Your task to perform on an android device: change the upload size in google photos Image 0: 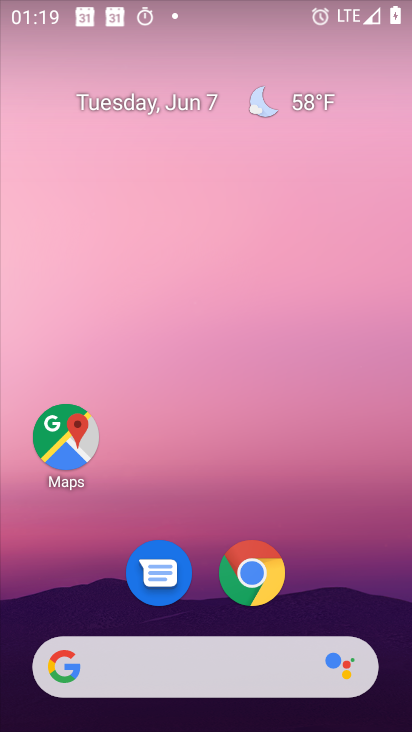
Step 0: drag from (358, 586) to (376, 71)
Your task to perform on an android device: change the upload size in google photos Image 1: 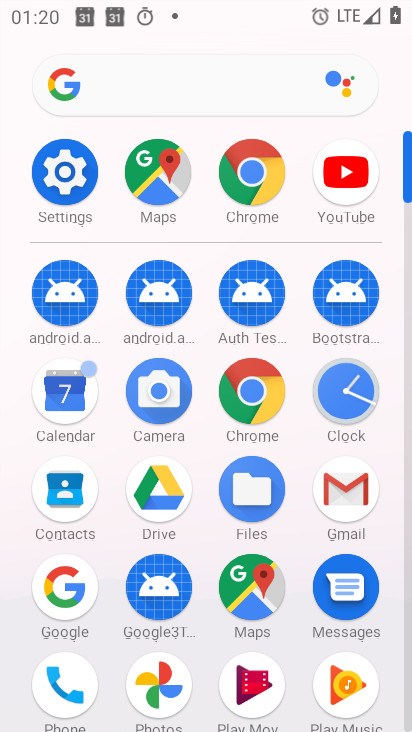
Step 1: click (156, 672)
Your task to perform on an android device: change the upload size in google photos Image 2: 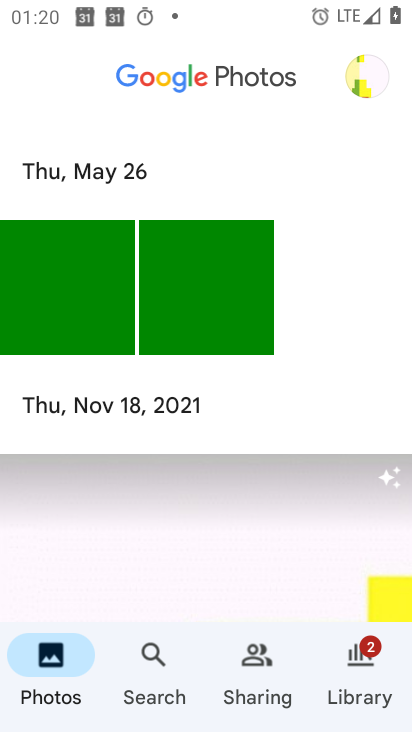
Step 2: click (358, 75)
Your task to perform on an android device: change the upload size in google photos Image 3: 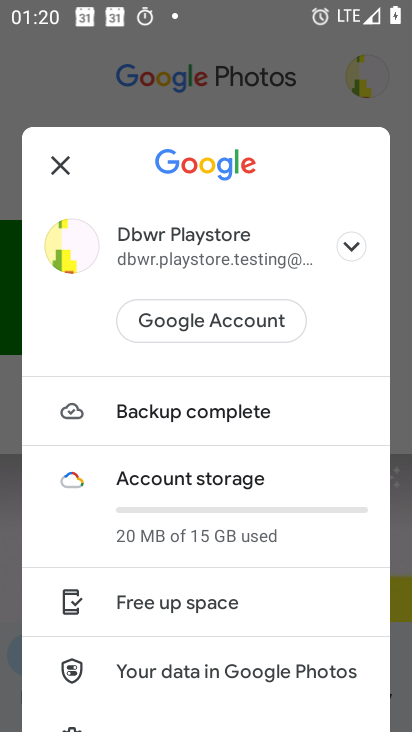
Step 3: drag from (132, 666) to (161, 285)
Your task to perform on an android device: change the upload size in google photos Image 4: 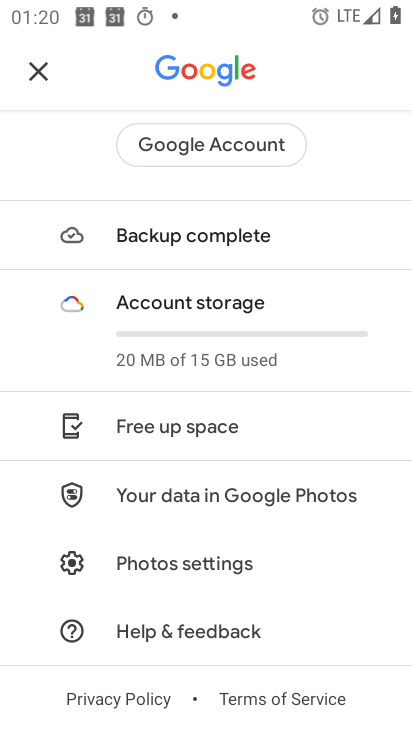
Step 4: click (167, 557)
Your task to perform on an android device: change the upload size in google photos Image 5: 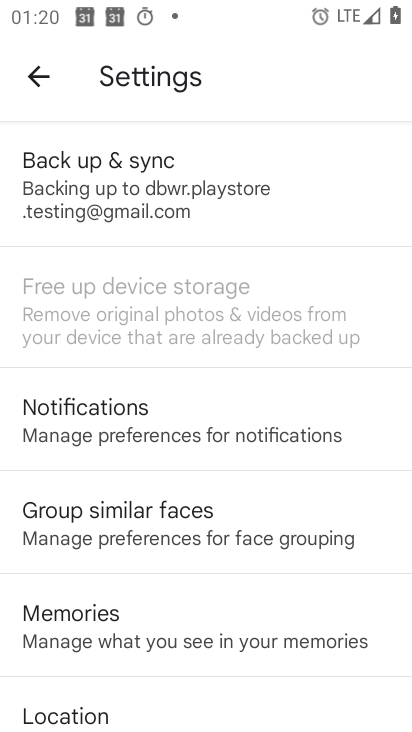
Step 5: click (116, 194)
Your task to perform on an android device: change the upload size in google photos Image 6: 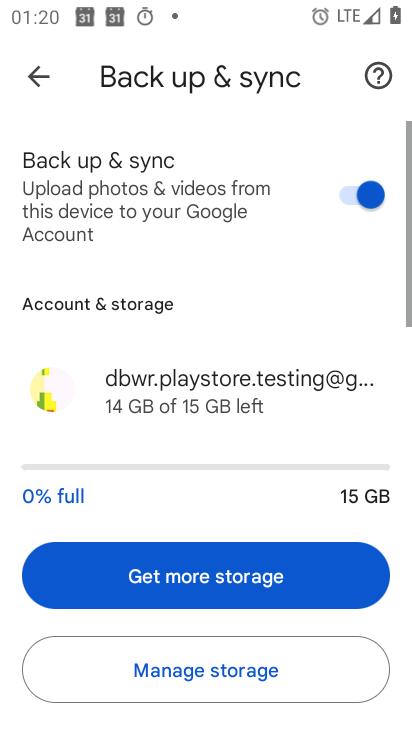
Step 6: drag from (68, 558) to (108, 254)
Your task to perform on an android device: change the upload size in google photos Image 7: 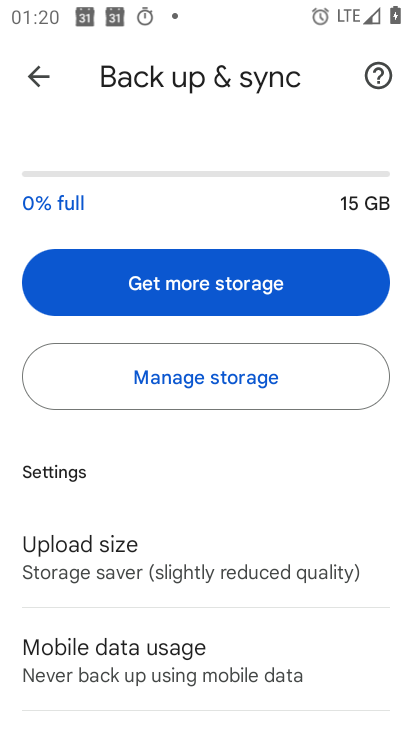
Step 7: click (92, 545)
Your task to perform on an android device: change the upload size in google photos Image 8: 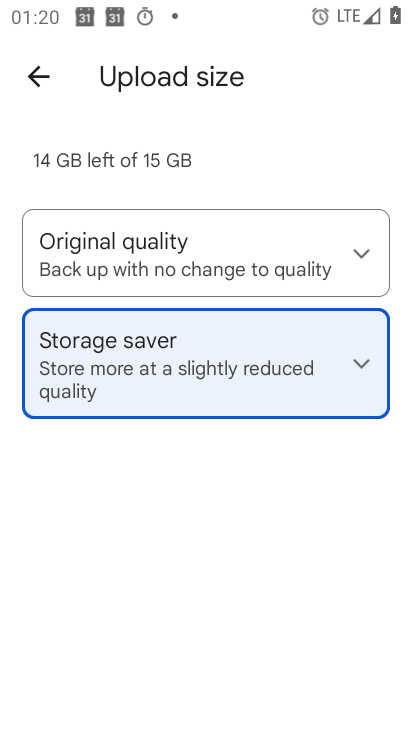
Step 8: click (95, 244)
Your task to perform on an android device: change the upload size in google photos Image 9: 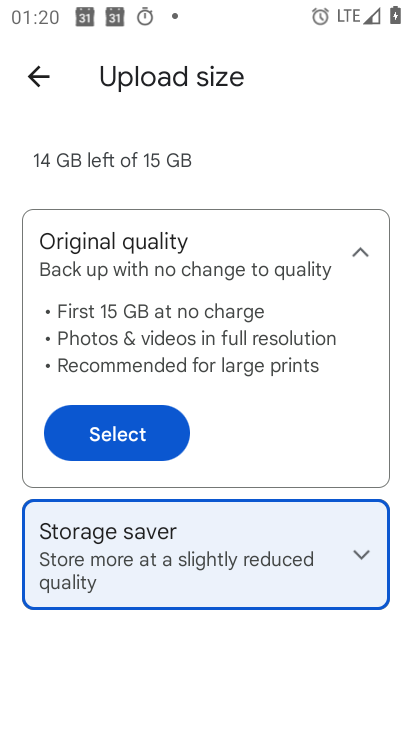
Step 9: click (98, 441)
Your task to perform on an android device: change the upload size in google photos Image 10: 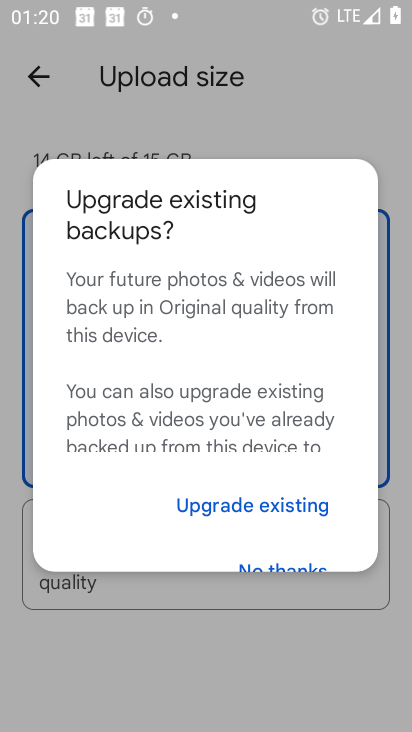
Step 10: drag from (182, 525) to (217, 281)
Your task to perform on an android device: change the upload size in google photos Image 11: 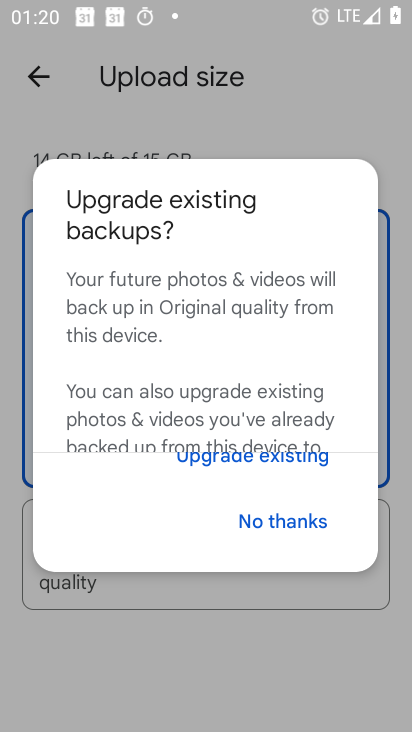
Step 11: click (205, 459)
Your task to perform on an android device: change the upload size in google photos Image 12: 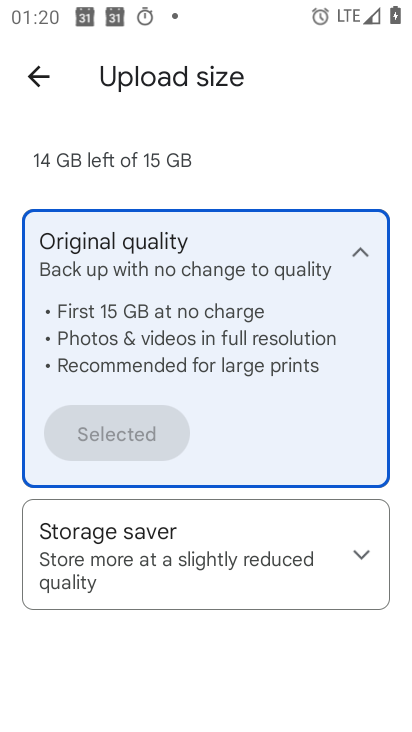
Step 12: task complete